Your task to perform on an android device: Open calendar and show me the second week of next month Image 0: 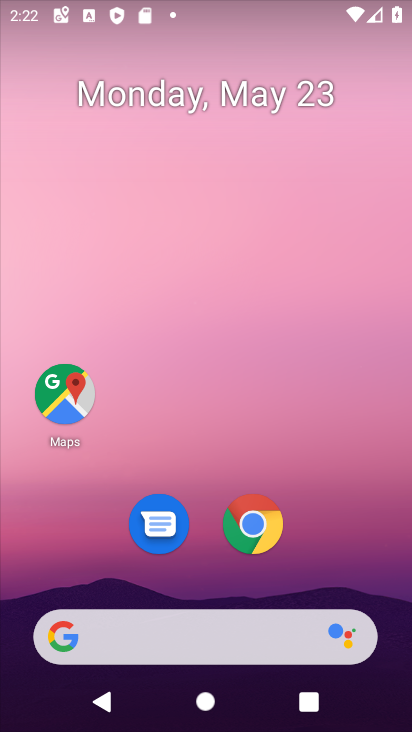
Step 0: drag from (194, 432) to (199, 25)
Your task to perform on an android device: Open calendar and show me the second week of next month Image 1: 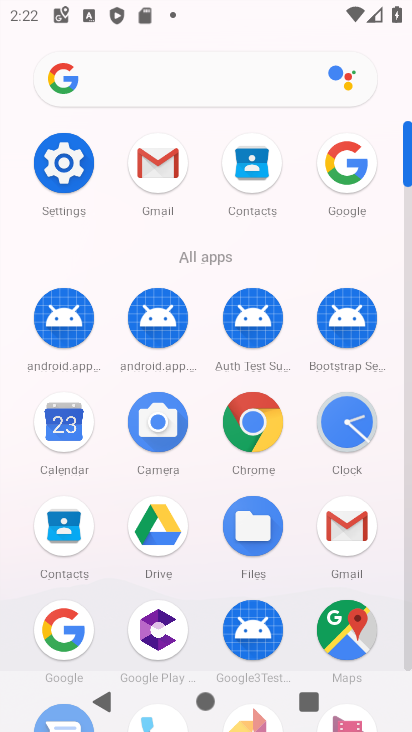
Step 1: click (66, 421)
Your task to perform on an android device: Open calendar and show me the second week of next month Image 2: 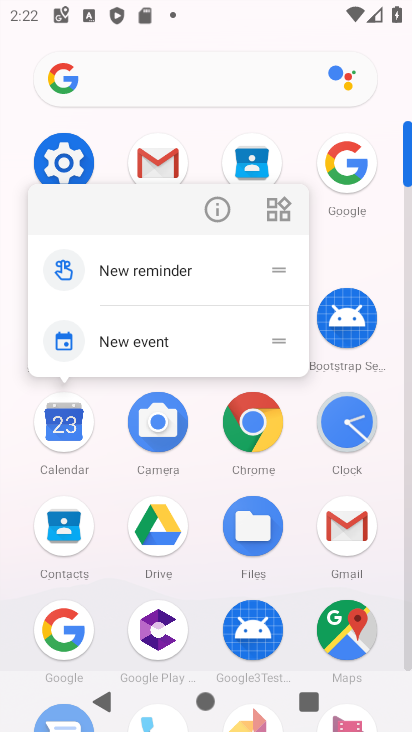
Step 2: click (66, 418)
Your task to perform on an android device: Open calendar and show me the second week of next month Image 3: 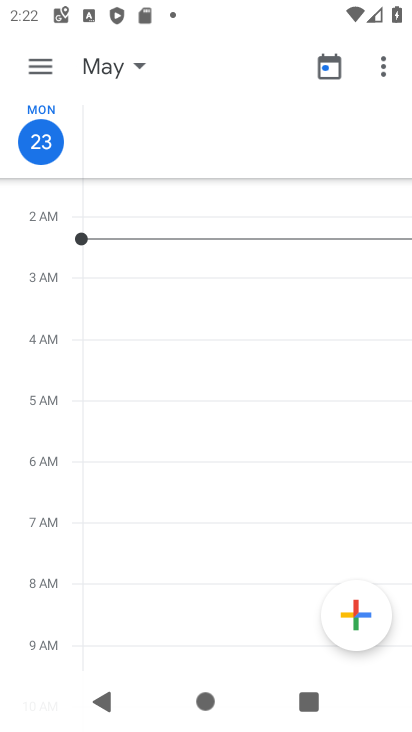
Step 3: click (45, 64)
Your task to perform on an android device: Open calendar and show me the second week of next month Image 4: 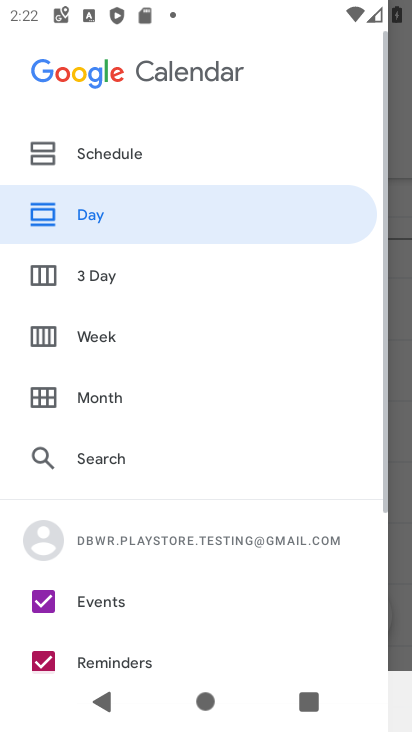
Step 4: click (43, 343)
Your task to perform on an android device: Open calendar and show me the second week of next month Image 5: 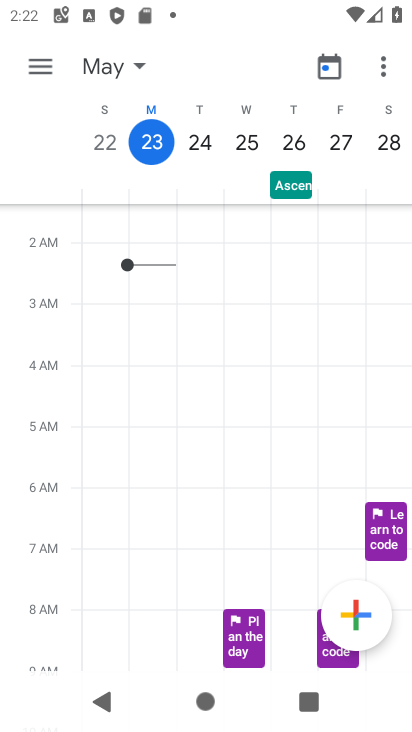
Step 5: task complete